Your task to perform on an android device: Open Google Chrome and click the shortcut for Amazon.com Image 0: 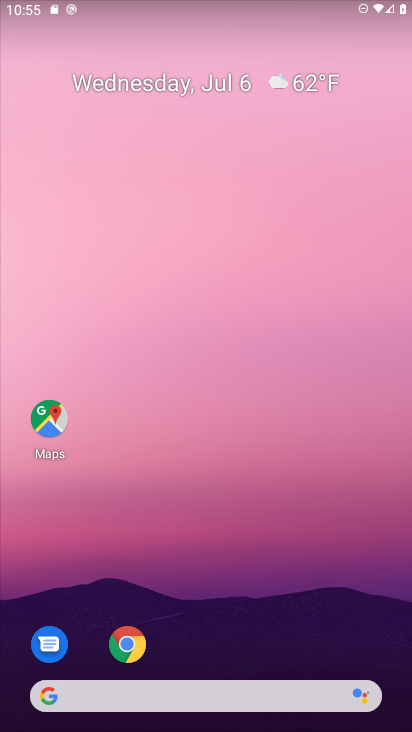
Step 0: press home button
Your task to perform on an android device: Open Google Chrome and click the shortcut for Amazon.com Image 1: 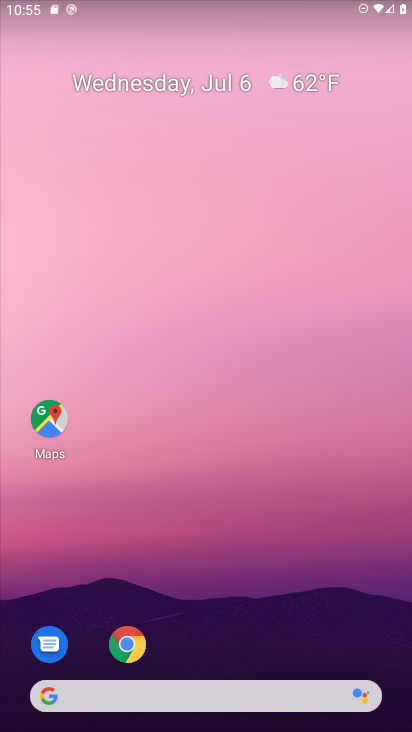
Step 1: drag from (217, 650) to (219, 41)
Your task to perform on an android device: Open Google Chrome and click the shortcut for Amazon.com Image 2: 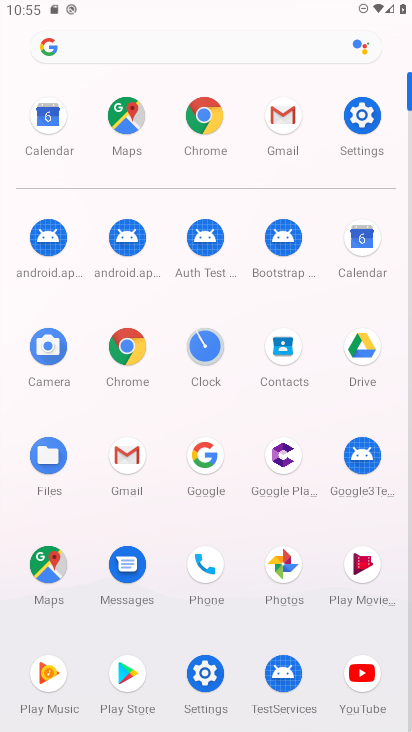
Step 2: click (209, 121)
Your task to perform on an android device: Open Google Chrome and click the shortcut for Amazon.com Image 3: 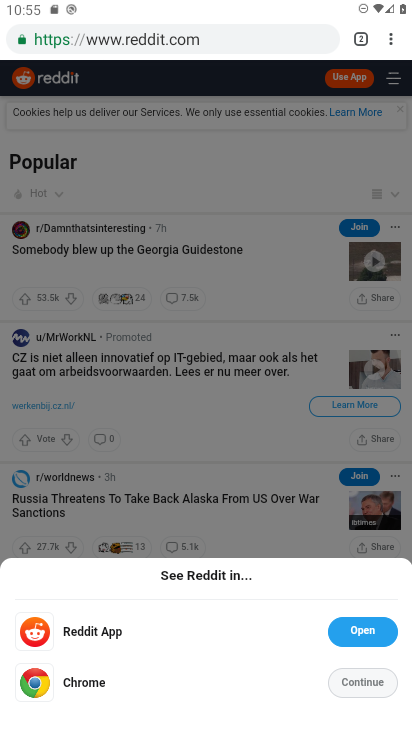
Step 3: click (359, 33)
Your task to perform on an android device: Open Google Chrome and click the shortcut for Amazon.com Image 4: 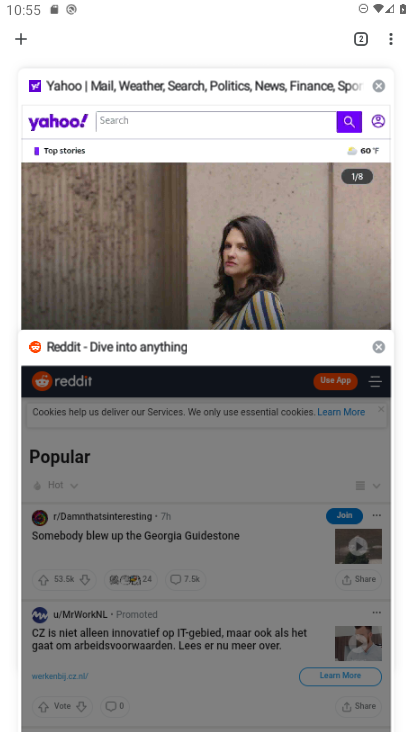
Step 4: click (19, 37)
Your task to perform on an android device: Open Google Chrome and click the shortcut for Amazon.com Image 5: 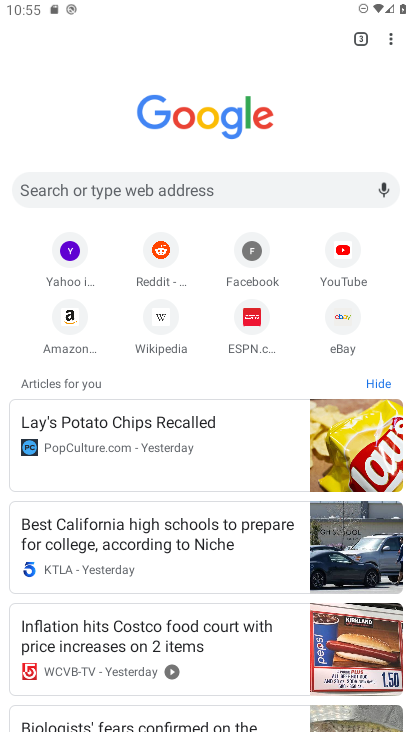
Step 5: click (71, 319)
Your task to perform on an android device: Open Google Chrome and click the shortcut for Amazon.com Image 6: 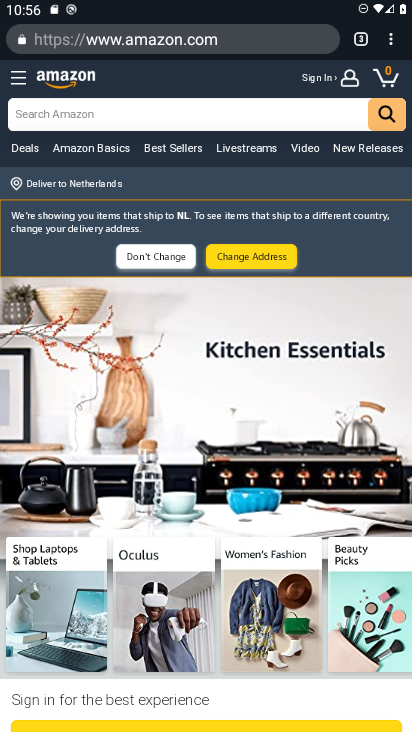
Step 6: task complete